Your task to perform on an android device: Go to notification settings Image 0: 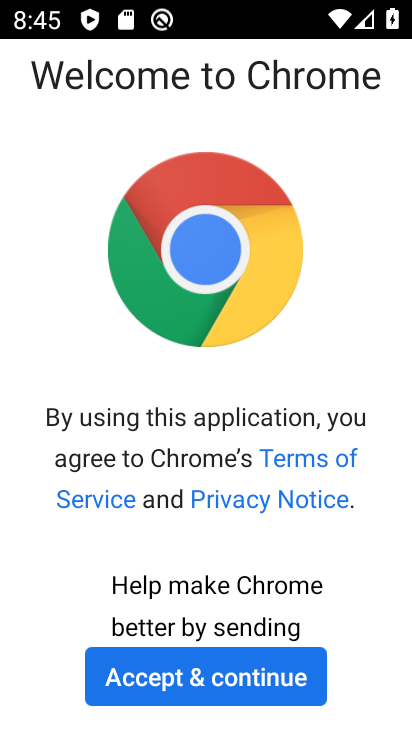
Step 0: press home button
Your task to perform on an android device: Go to notification settings Image 1: 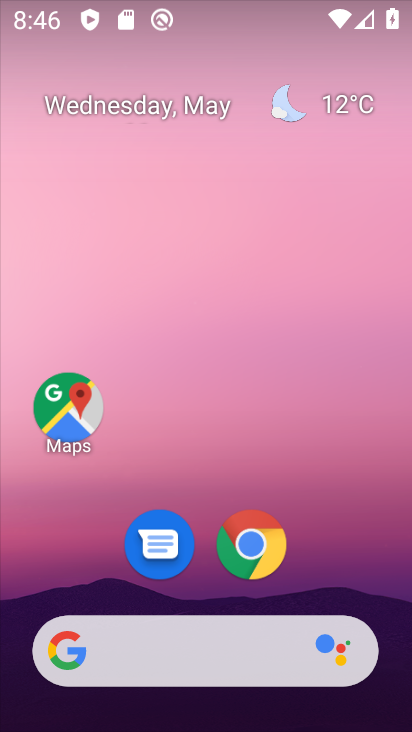
Step 1: drag from (208, 581) to (338, 27)
Your task to perform on an android device: Go to notification settings Image 2: 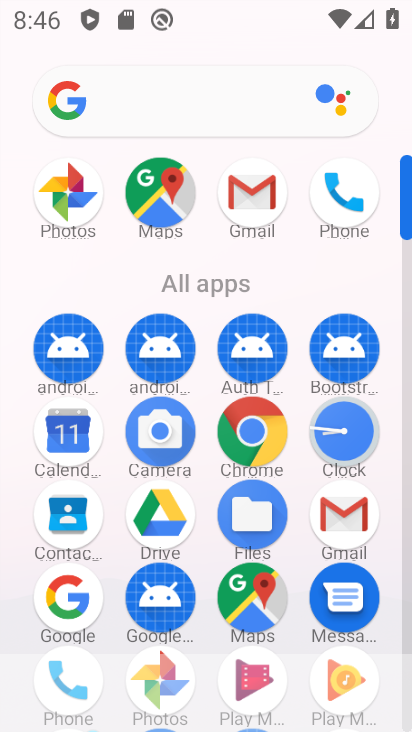
Step 2: drag from (202, 533) to (254, 133)
Your task to perform on an android device: Go to notification settings Image 3: 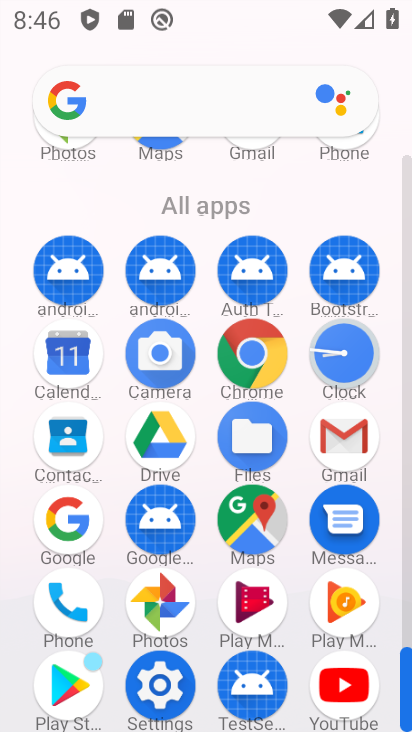
Step 3: click (153, 661)
Your task to perform on an android device: Go to notification settings Image 4: 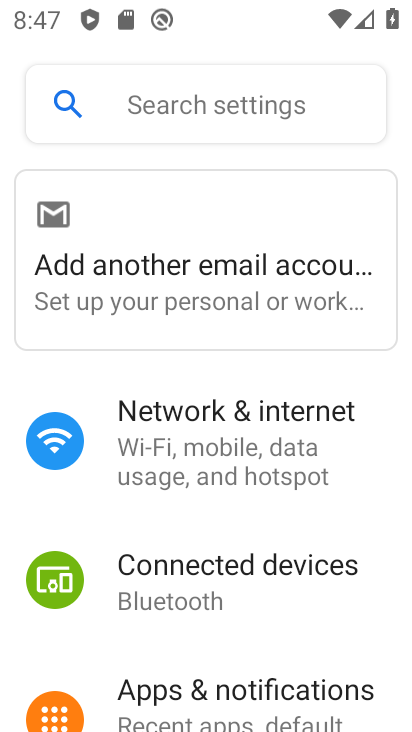
Step 4: click (117, 703)
Your task to perform on an android device: Go to notification settings Image 5: 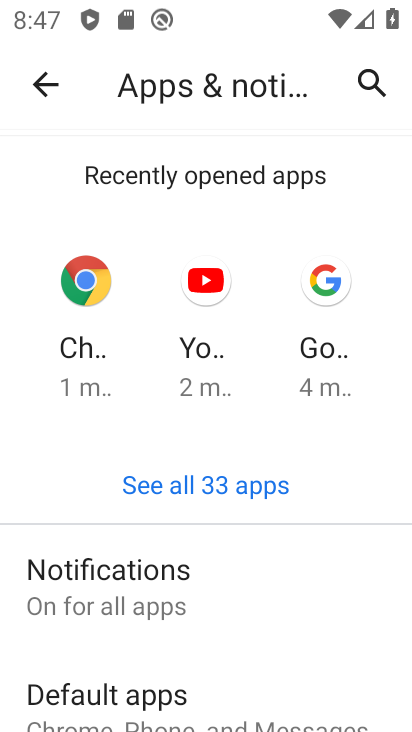
Step 5: task complete